Your task to perform on an android device: open chrome privacy settings Image 0: 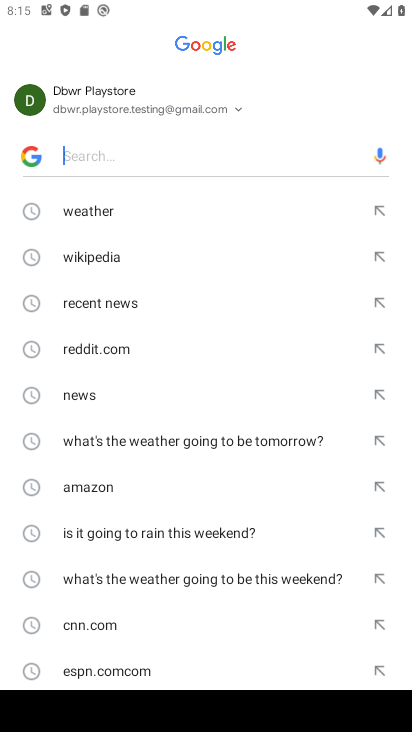
Step 0: press home button
Your task to perform on an android device: open chrome privacy settings Image 1: 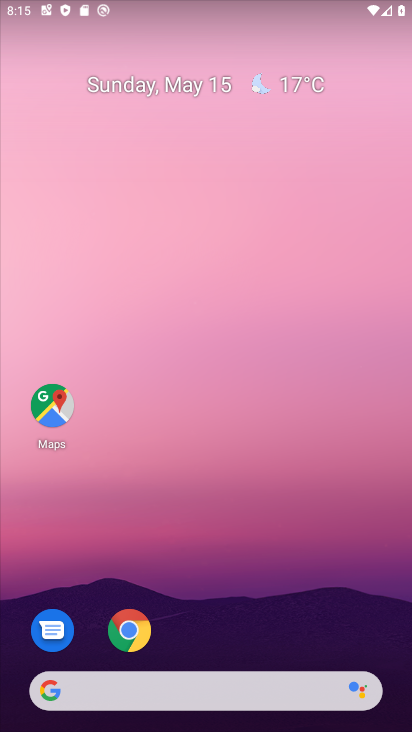
Step 1: drag from (378, 558) to (331, 54)
Your task to perform on an android device: open chrome privacy settings Image 2: 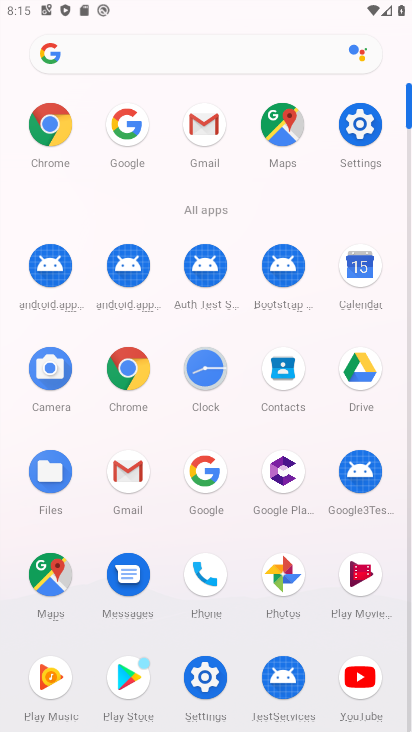
Step 2: click (370, 127)
Your task to perform on an android device: open chrome privacy settings Image 3: 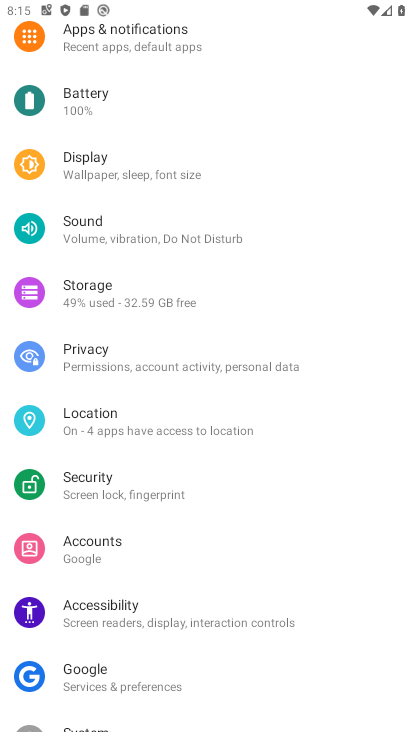
Step 3: click (96, 348)
Your task to perform on an android device: open chrome privacy settings Image 4: 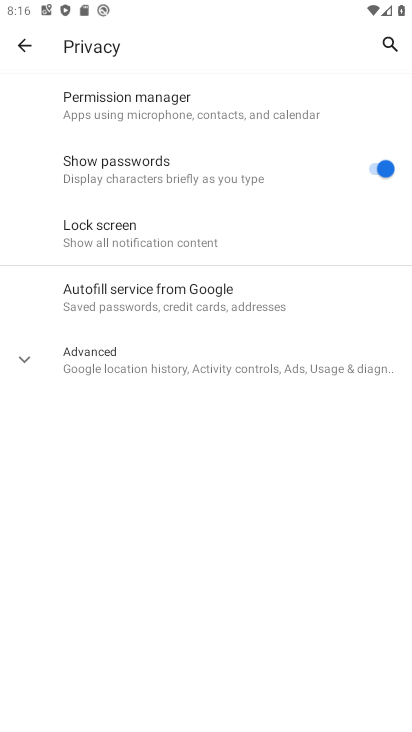
Step 4: task complete